Your task to perform on an android device: set default search engine in the chrome app Image 0: 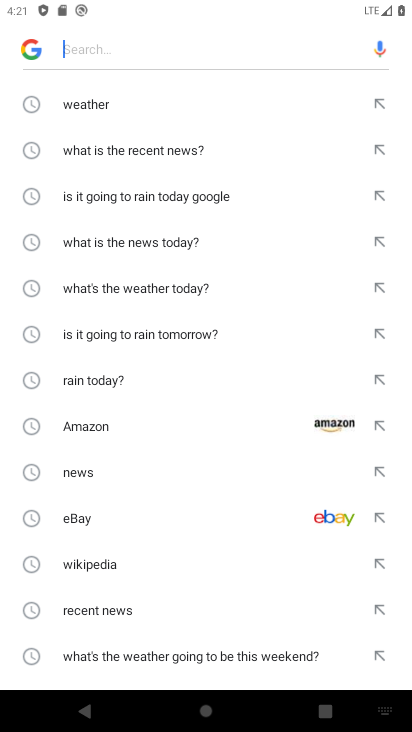
Step 0: press home button
Your task to perform on an android device: set default search engine in the chrome app Image 1: 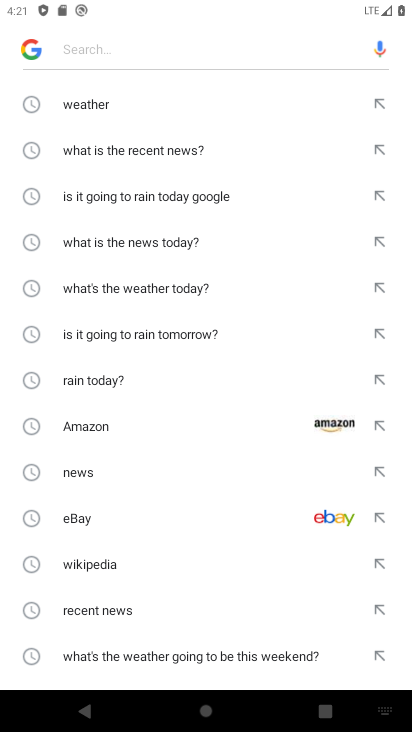
Step 1: press home button
Your task to perform on an android device: set default search engine in the chrome app Image 2: 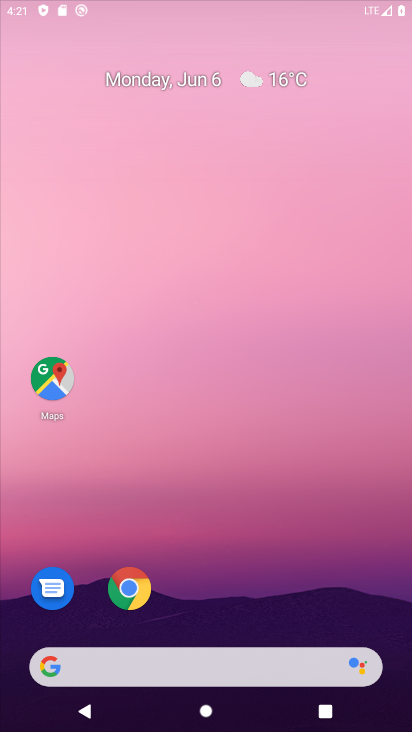
Step 2: press home button
Your task to perform on an android device: set default search engine in the chrome app Image 3: 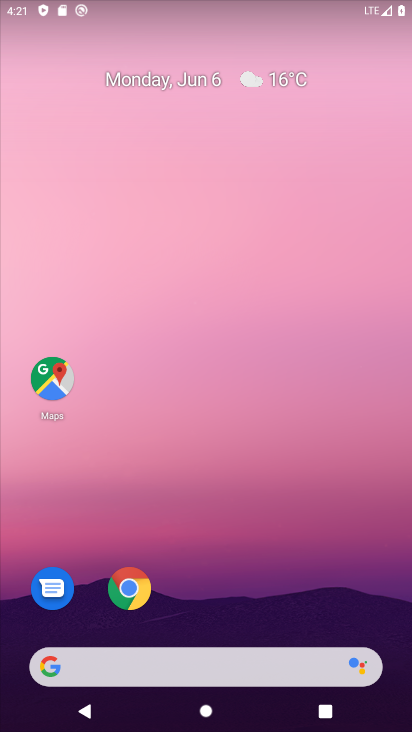
Step 3: drag from (224, 624) to (172, 170)
Your task to perform on an android device: set default search engine in the chrome app Image 4: 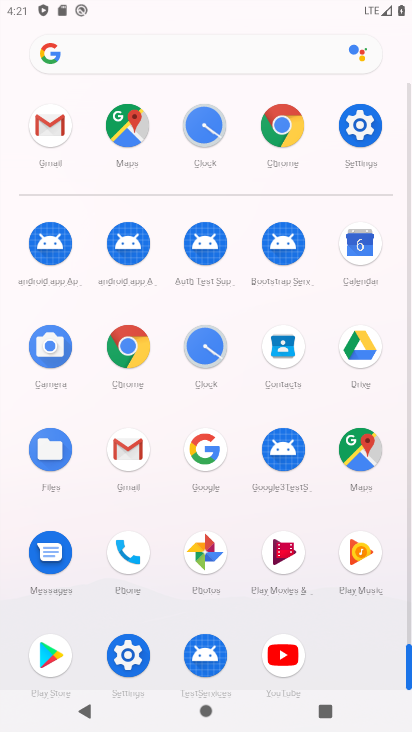
Step 4: click (130, 340)
Your task to perform on an android device: set default search engine in the chrome app Image 5: 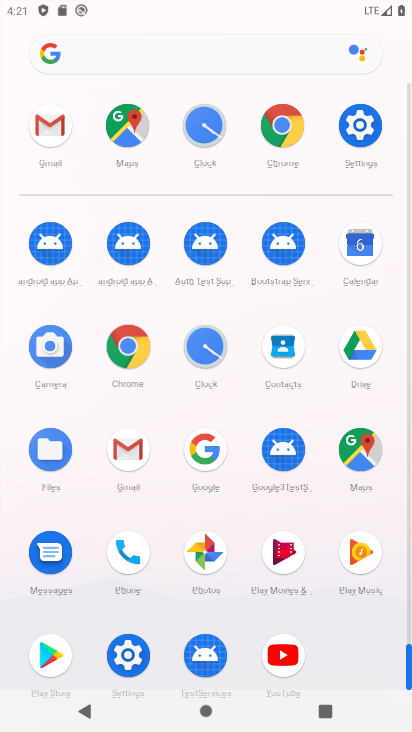
Step 5: click (130, 340)
Your task to perform on an android device: set default search engine in the chrome app Image 6: 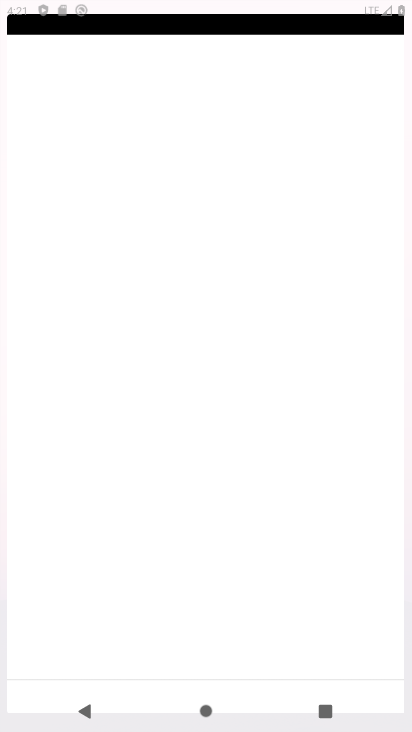
Step 6: click (127, 337)
Your task to perform on an android device: set default search engine in the chrome app Image 7: 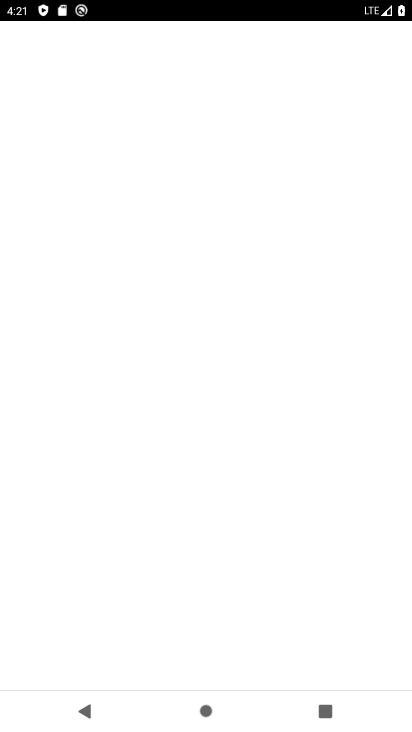
Step 7: click (132, 340)
Your task to perform on an android device: set default search engine in the chrome app Image 8: 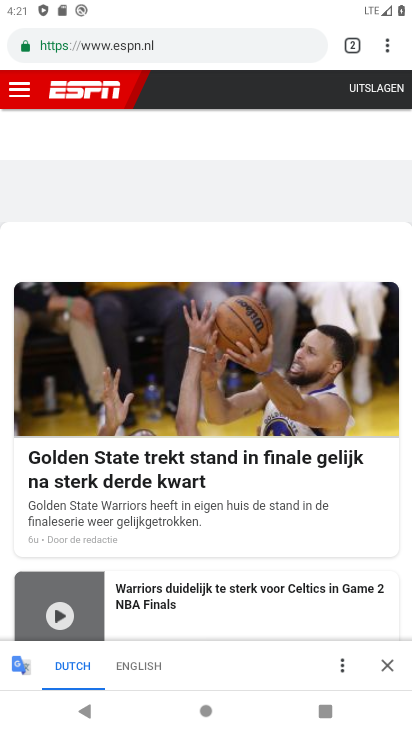
Step 8: drag from (387, 42) to (232, 608)
Your task to perform on an android device: set default search engine in the chrome app Image 9: 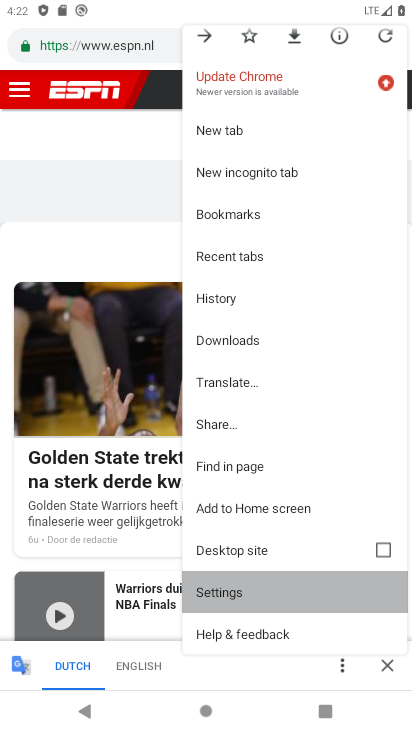
Step 9: click (231, 608)
Your task to perform on an android device: set default search engine in the chrome app Image 10: 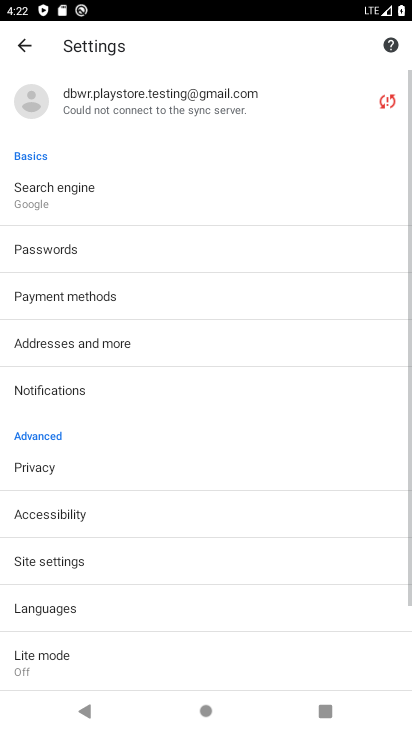
Step 10: click (38, 191)
Your task to perform on an android device: set default search engine in the chrome app Image 11: 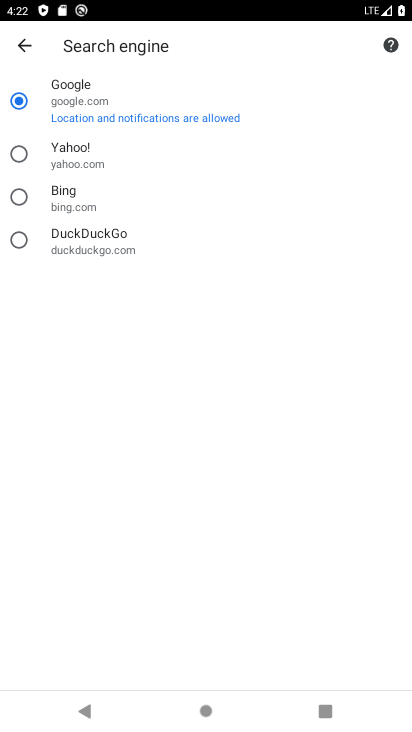
Step 11: click (22, 154)
Your task to perform on an android device: set default search engine in the chrome app Image 12: 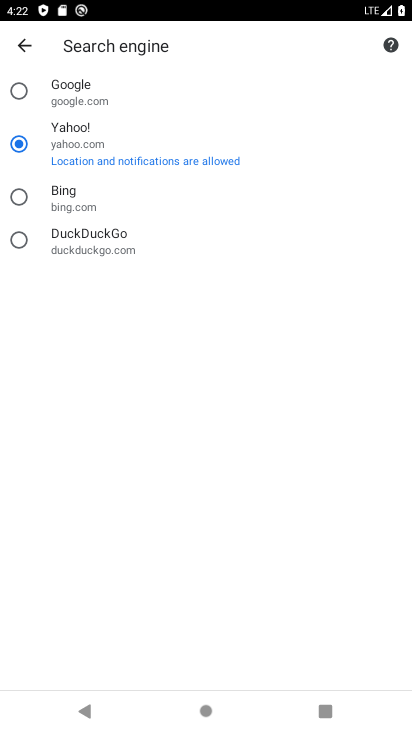
Step 12: click (21, 90)
Your task to perform on an android device: set default search engine in the chrome app Image 13: 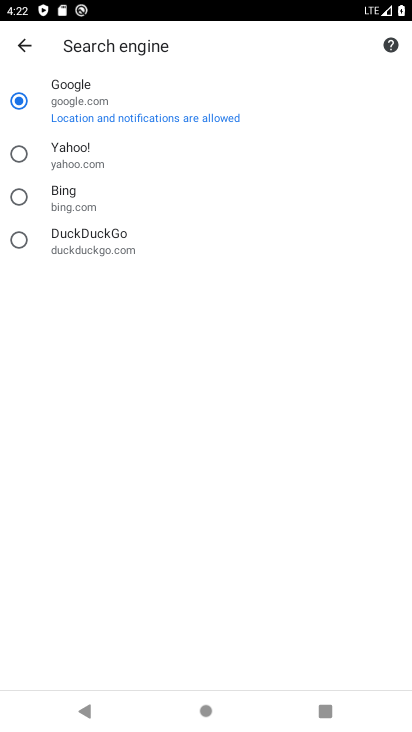
Step 13: task complete